Your task to perform on an android device: turn on notifications settings in the gmail app Image 0: 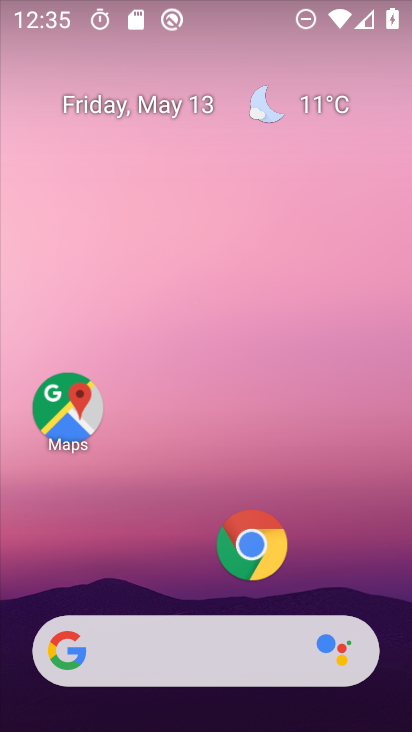
Step 0: press home button
Your task to perform on an android device: turn on notifications settings in the gmail app Image 1: 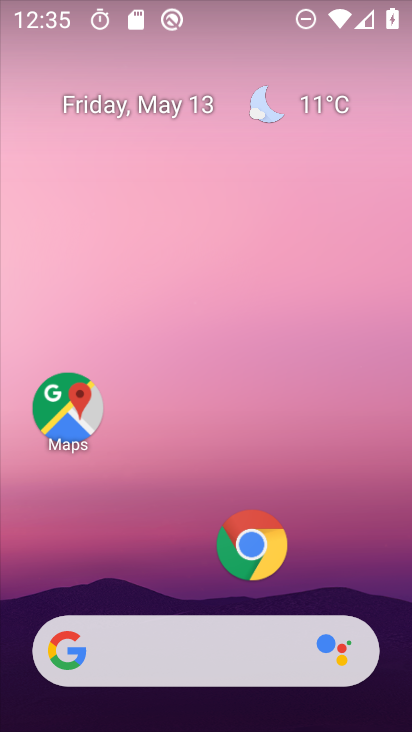
Step 1: drag from (194, 587) to (195, 53)
Your task to perform on an android device: turn on notifications settings in the gmail app Image 2: 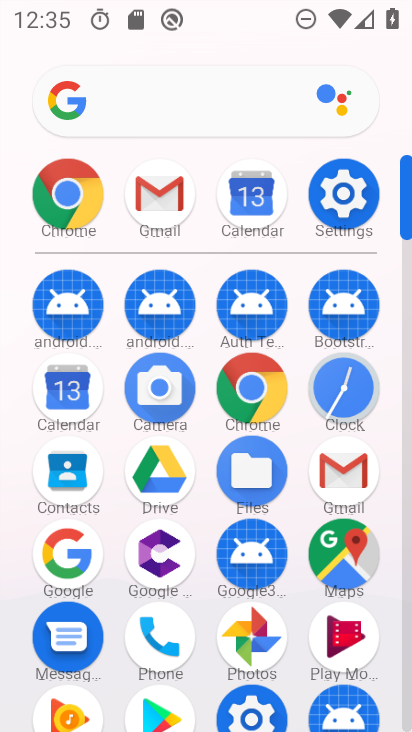
Step 2: click (343, 465)
Your task to perform on an android device: turn on notifications settings in the gmail app Image 3: 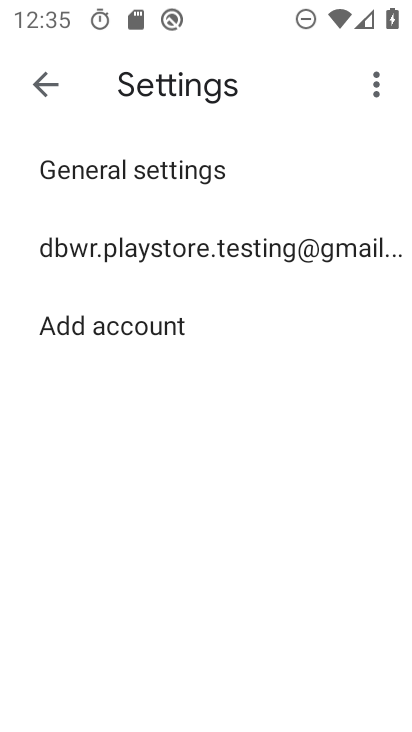
Step 3: click (228, 167)
Your task to perform on an android device: turn on notifications settings in the gmail app Image 4: 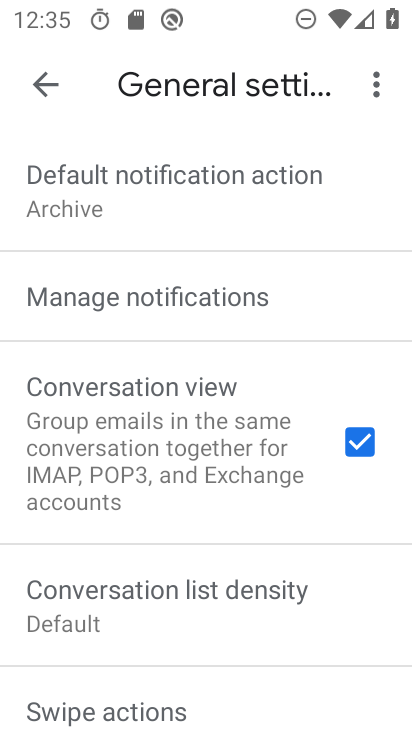
Step 4: click (284, 298)
Your task to perform on an android device: turn on notifications settings in the gmail app Image 5: 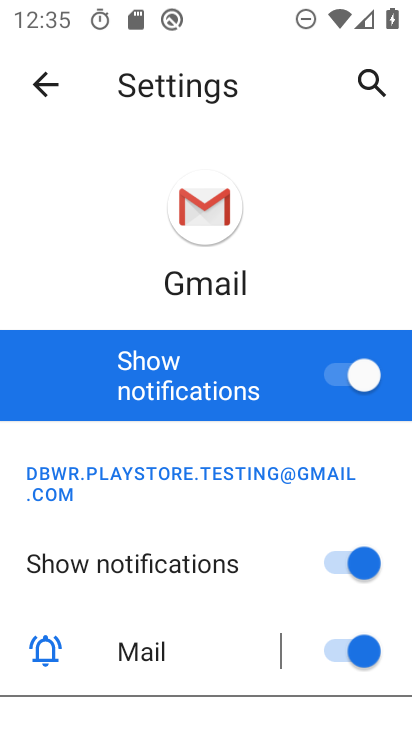
Step 5: task complete